Your task to perform on an android device: Open Google Image 0: 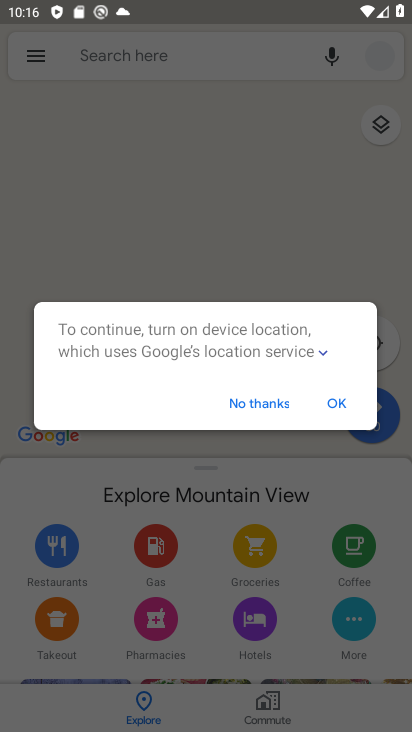
Step 0: press home button
Your task to perform on an android device: Open Google Image 1: 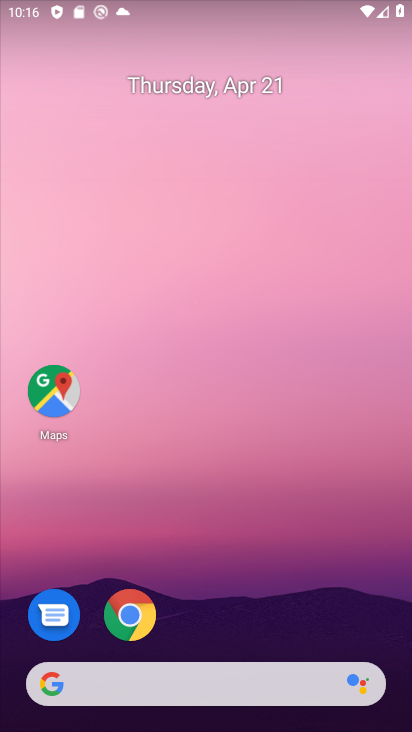
Step 1: drag from (211, 643) to (214, 73)
Your task to perform on an android device: Open Google Image 2: 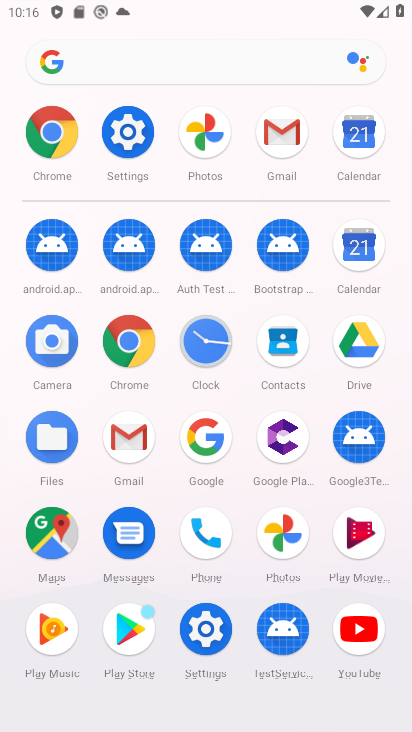
Step 2: click (204, 427)
Your task to perform on an android device: Open Google Image 3: 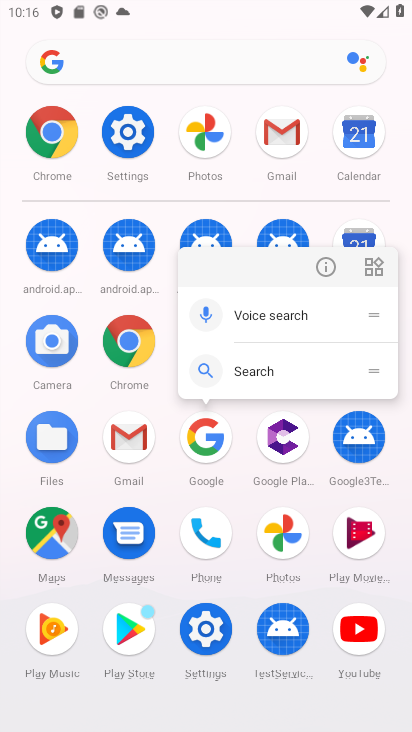
Step 3: click (202, 434)
Your task to perform on an android device: Open Google Image 4: 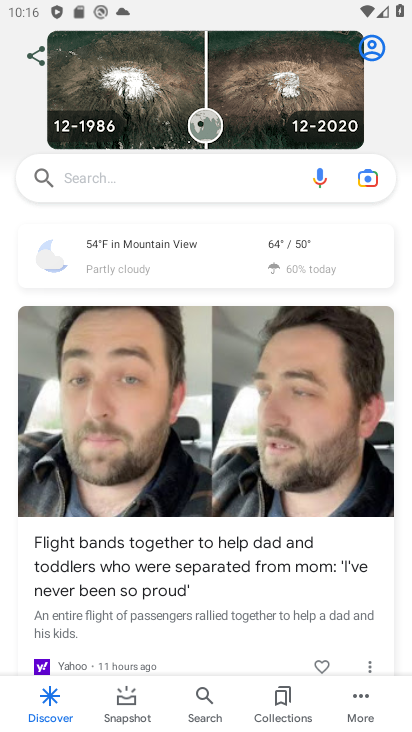
Step 4: task complete